Your task to perform on an android device: Go to battery settings Image 0: 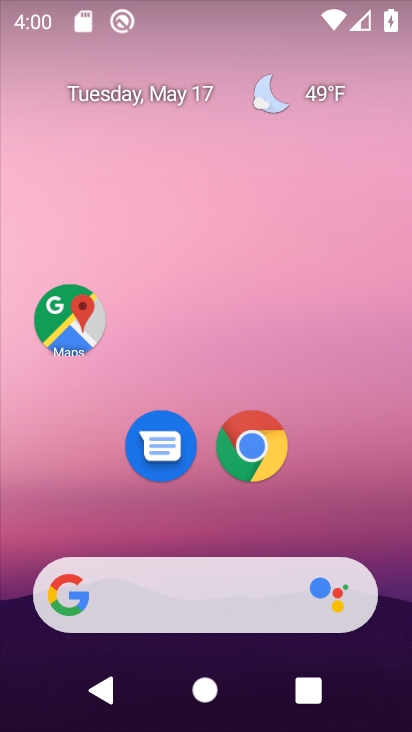
Step 0: drag from (83, 541) to (172, 108)
Your task to perform on an android device: Go to battery settings Image 1: 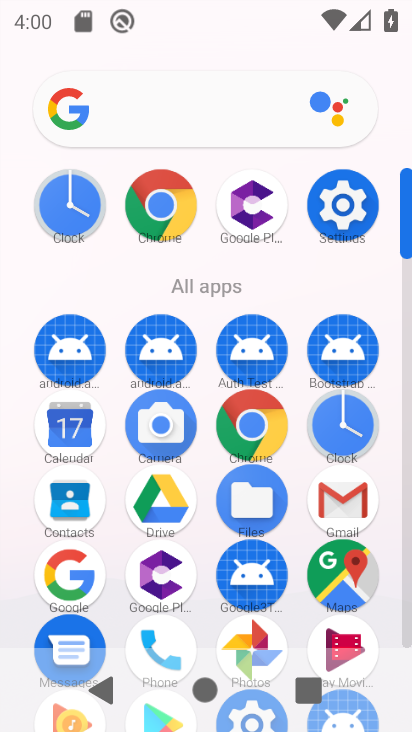
Step 1: drag from (198, 645) to (234, 370)
Your task to perform on an android device: Go to battery settings Image 2: 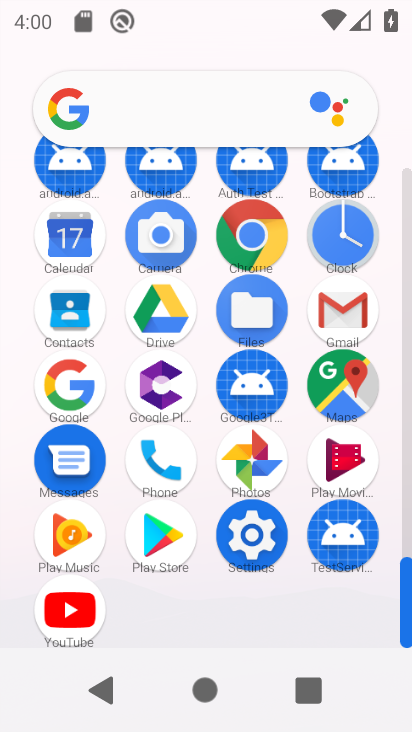
Step 2: click (249, 526)
Your task to perform on an android device: Go to battery settings Image 3: 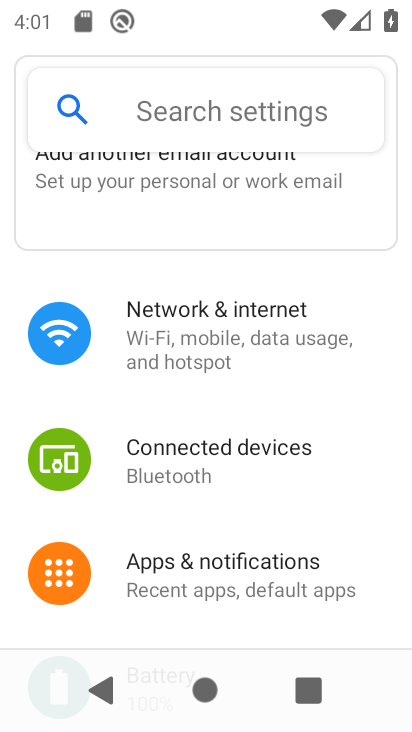
Step 3: drag from (226, 546) to (293, 299)
Your task to perform on an android device: Go to battery settings Image 4: 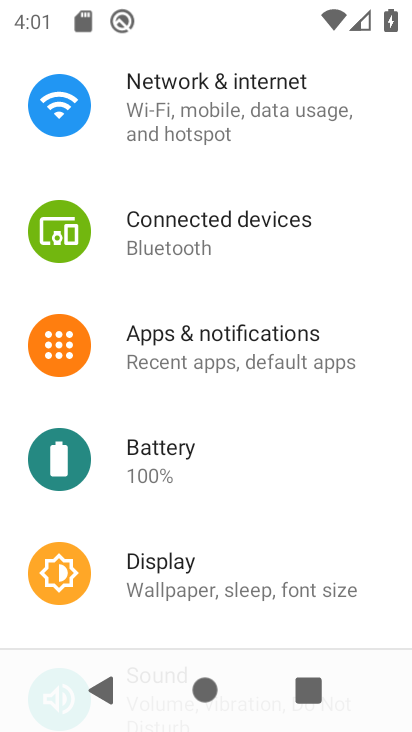
Step 4: click (251, 454)
Your task to perform on an android device: Go to battery settings Image 5: 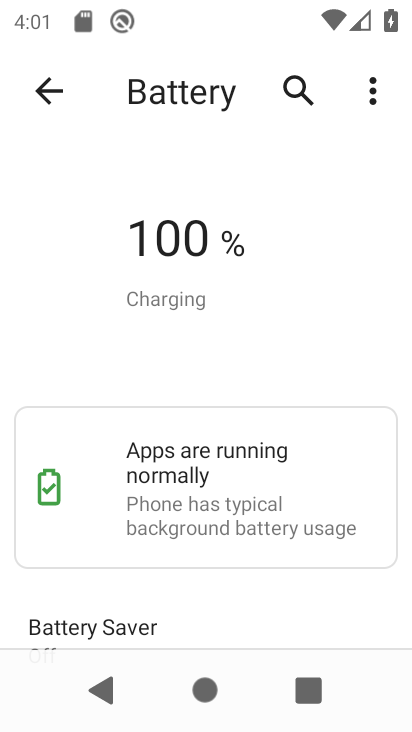
Step 5: task complete